Your task to perform on an android device: Open Google Chrome Image 0: 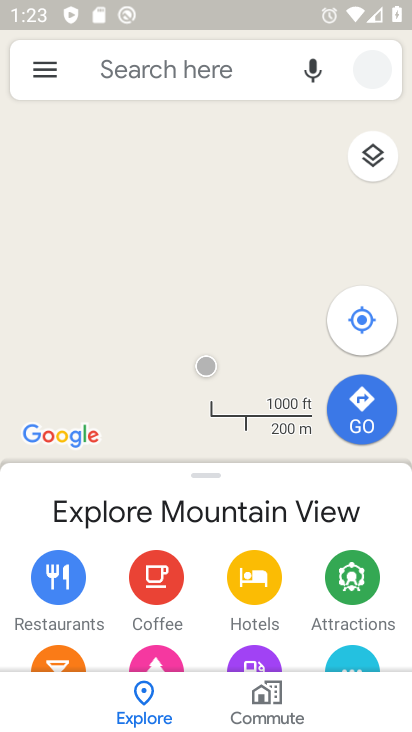
Step 0: press home button
Your task to perform on an android device: Open Google Chrome Image 1: 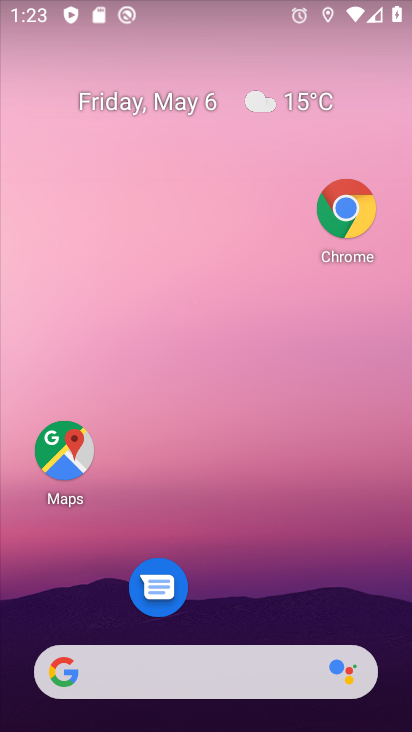
Step 1: click (352, 252)
Your task to perform on an android device: Open Google Chrome Image 2: 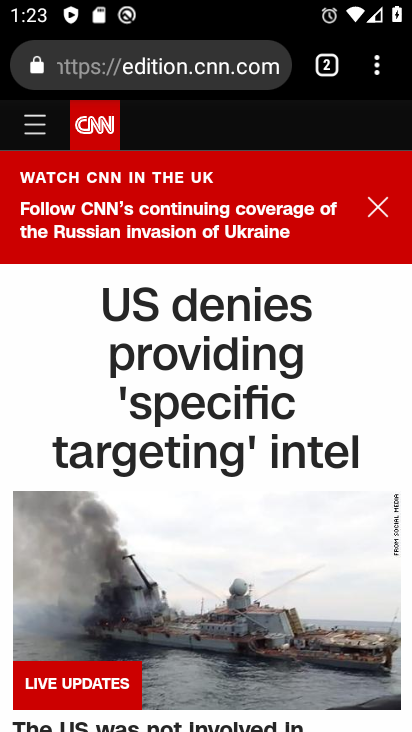
Step 2: task complete